Your task to perform on an android device: turn on showing notifications on the lock screen Image 0: 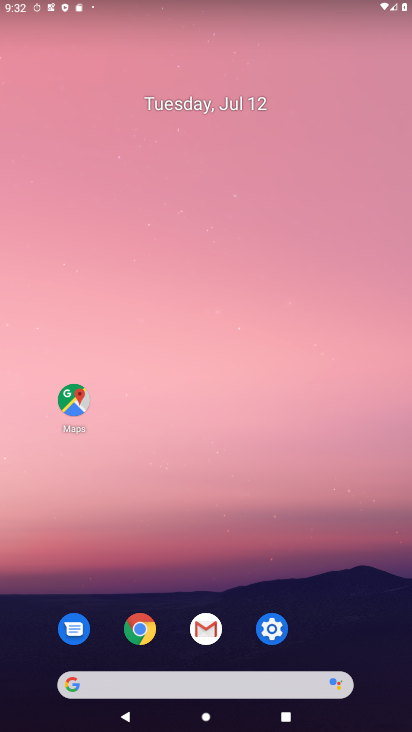
Step 0: press home button
Your task to perform on an android device: turn on showing notifications on the lock screen Image 1: 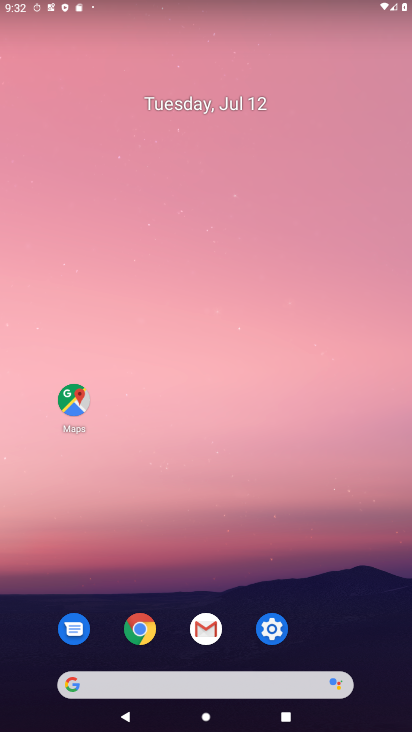
Step 1: click (282, 634)
Your task to perform on an android device: turn on showing notifications on the lock screen Image 2: 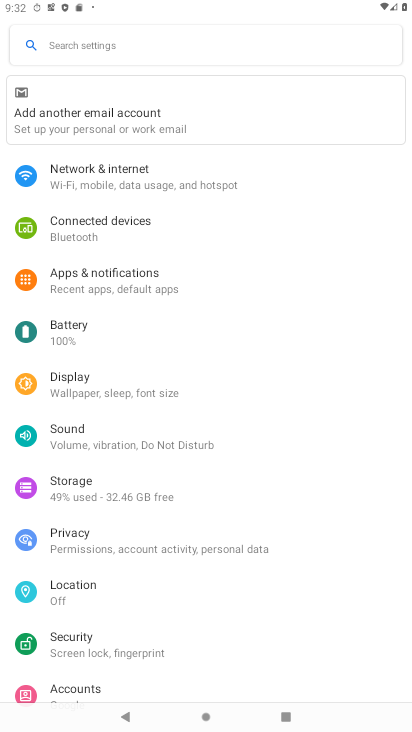
Step 2: click (131, 48)
Your task to perform on an android device: turn on showing notifications on the lock screen Image 3: 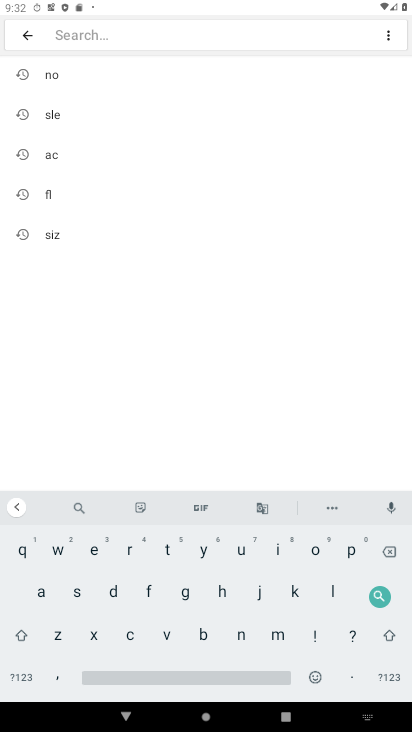
Step 3: click (64, 82)
Your task to perform on an android device: turn on showing notifications on the lock screen Image 4: 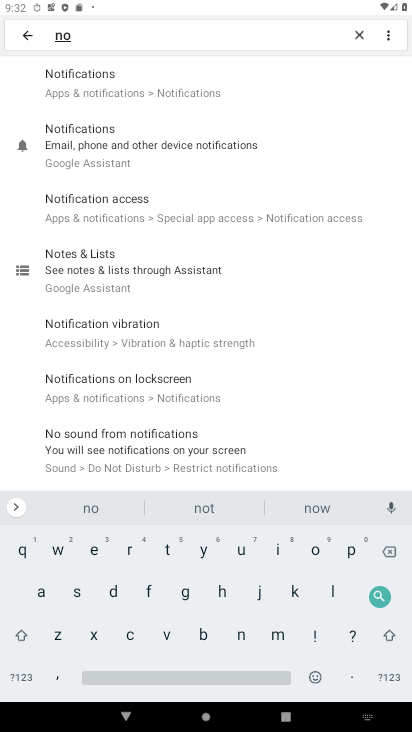
Step 4: click (64, 82)
Your task to perform on an android device: turn on showing notifications on the lock screen Image 5: 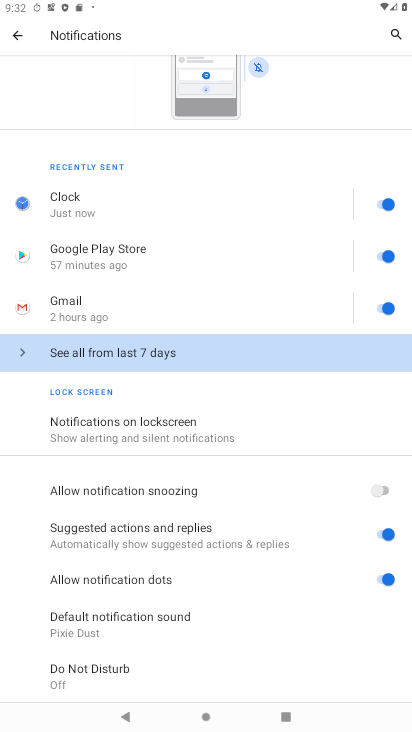
Step 5: click (95, 425)
Your task to perform on an android device: turn on showing notifications on the lock screen Image 6: 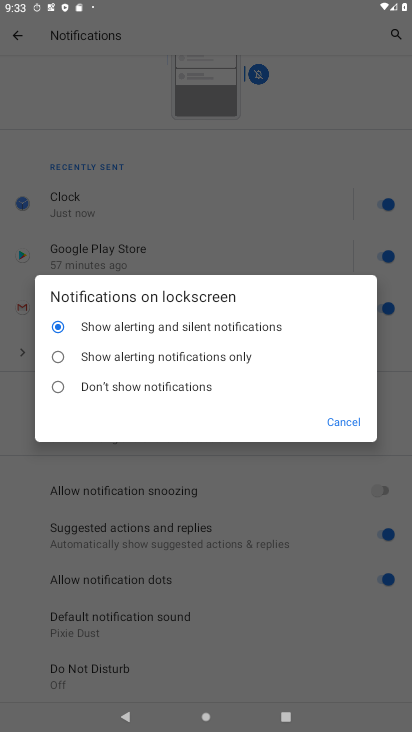
Step 6: task complete